Your task to perform on an android device: View the shopping cart on walmart. Image 0: 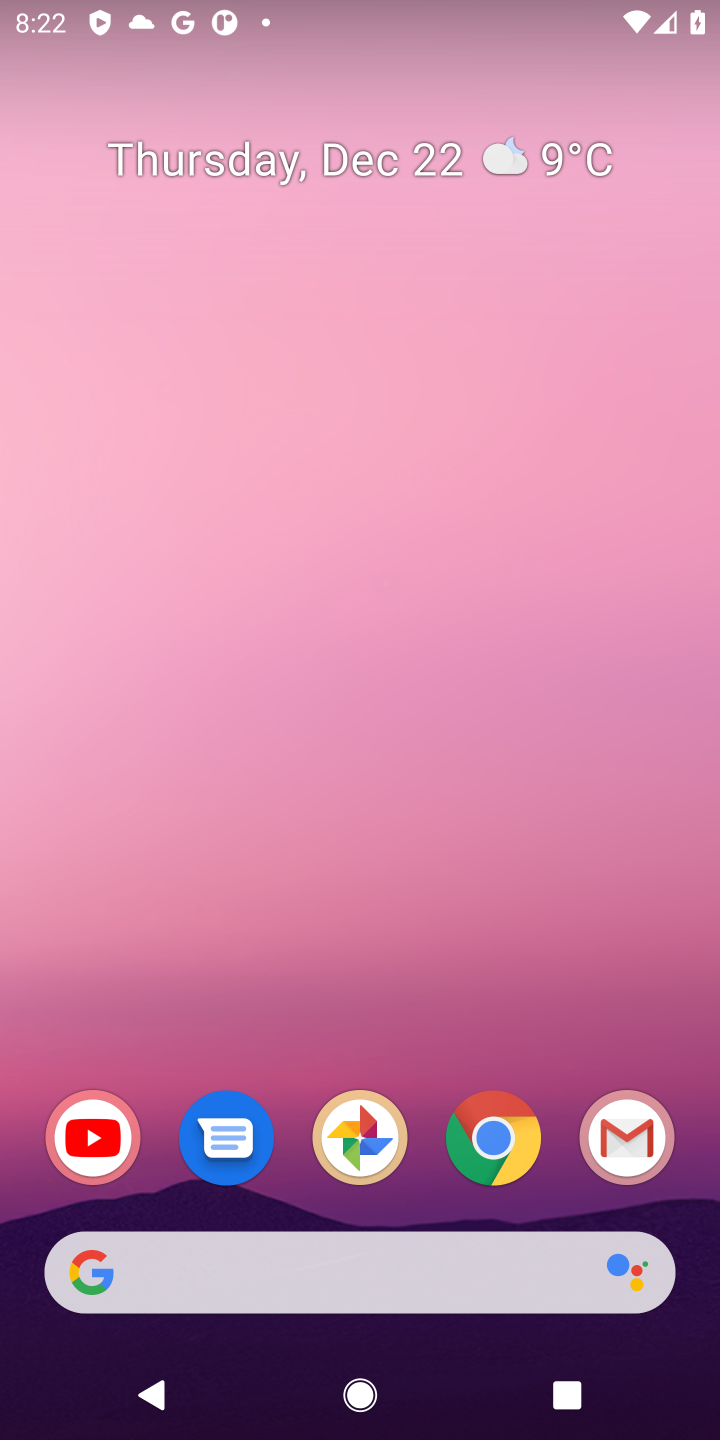
Step 0: click (483, 1142)
Your task to perform on an android device: View the shopping cart on walmart. Image 1: 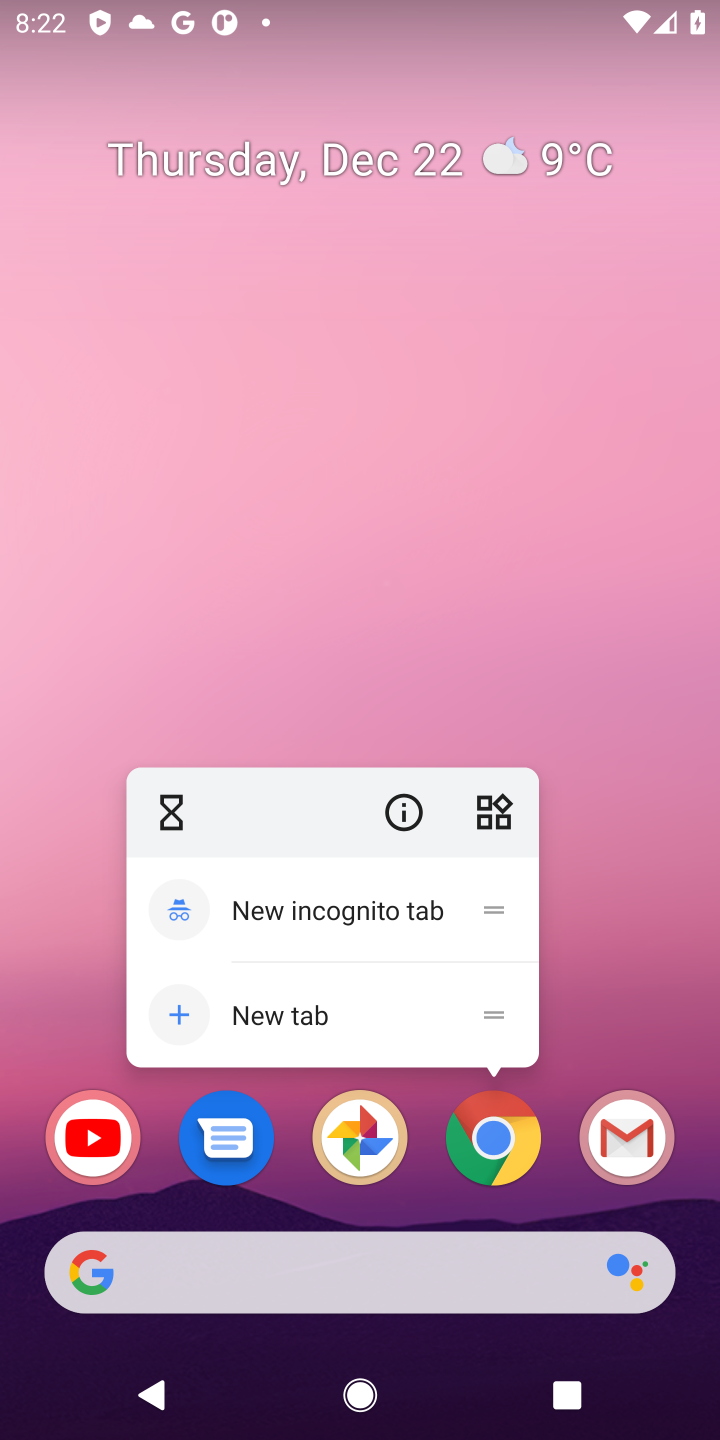
Step 1: click (514, 1166)
Your task to perform on an android device: View the shopping cart on walmart. Image 2: 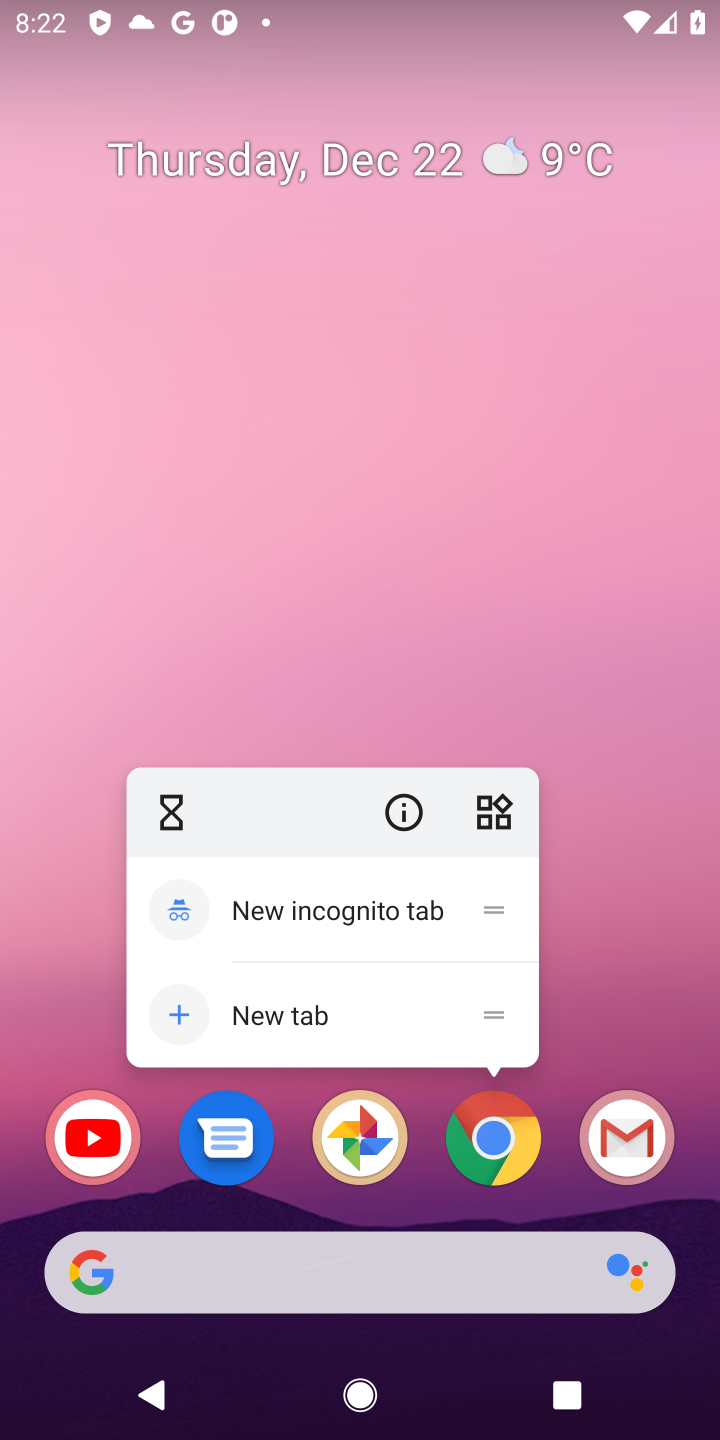
Step 2: click (275, 1031)
Your task to perform on an android device: View the shopping cart on walmart. Image 3: 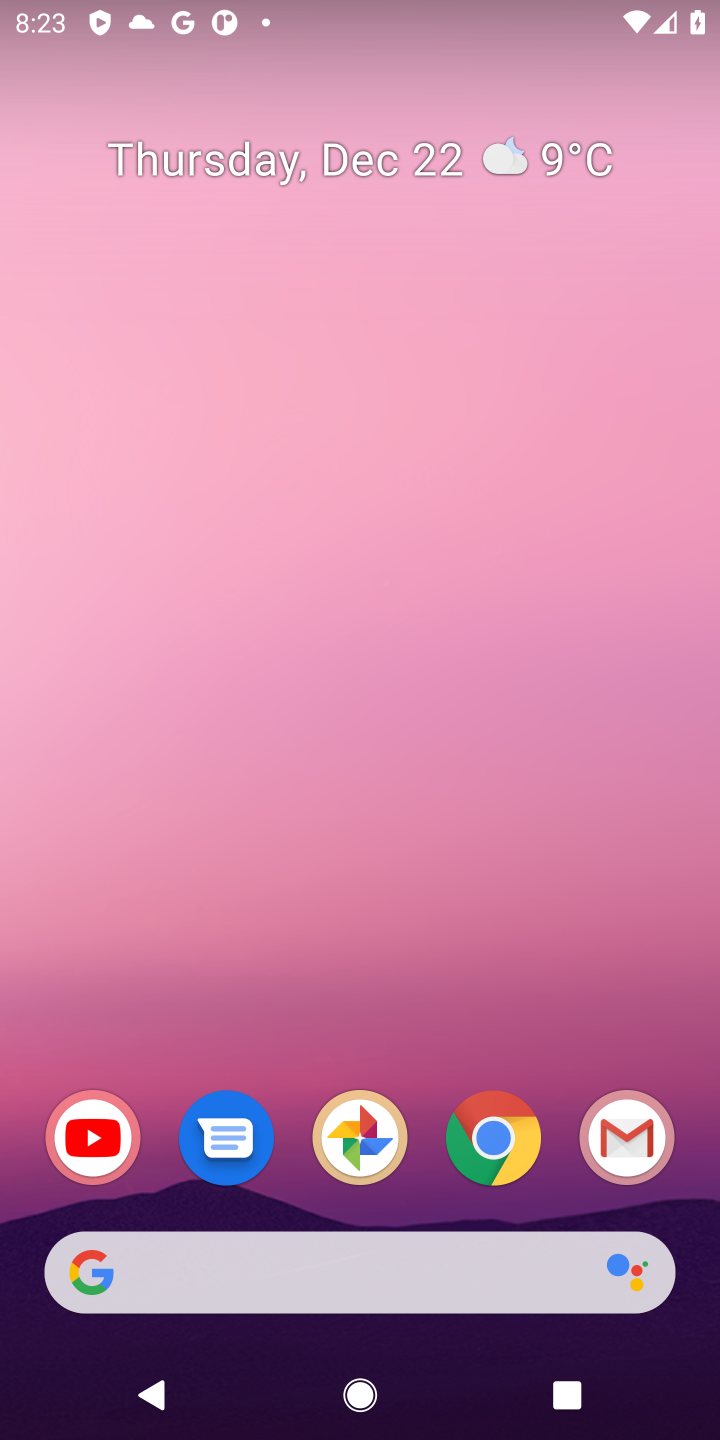
Step 3: click (489, 1139)
Your task to perform on an android device: View the shopping cart on walmart. Image 4: 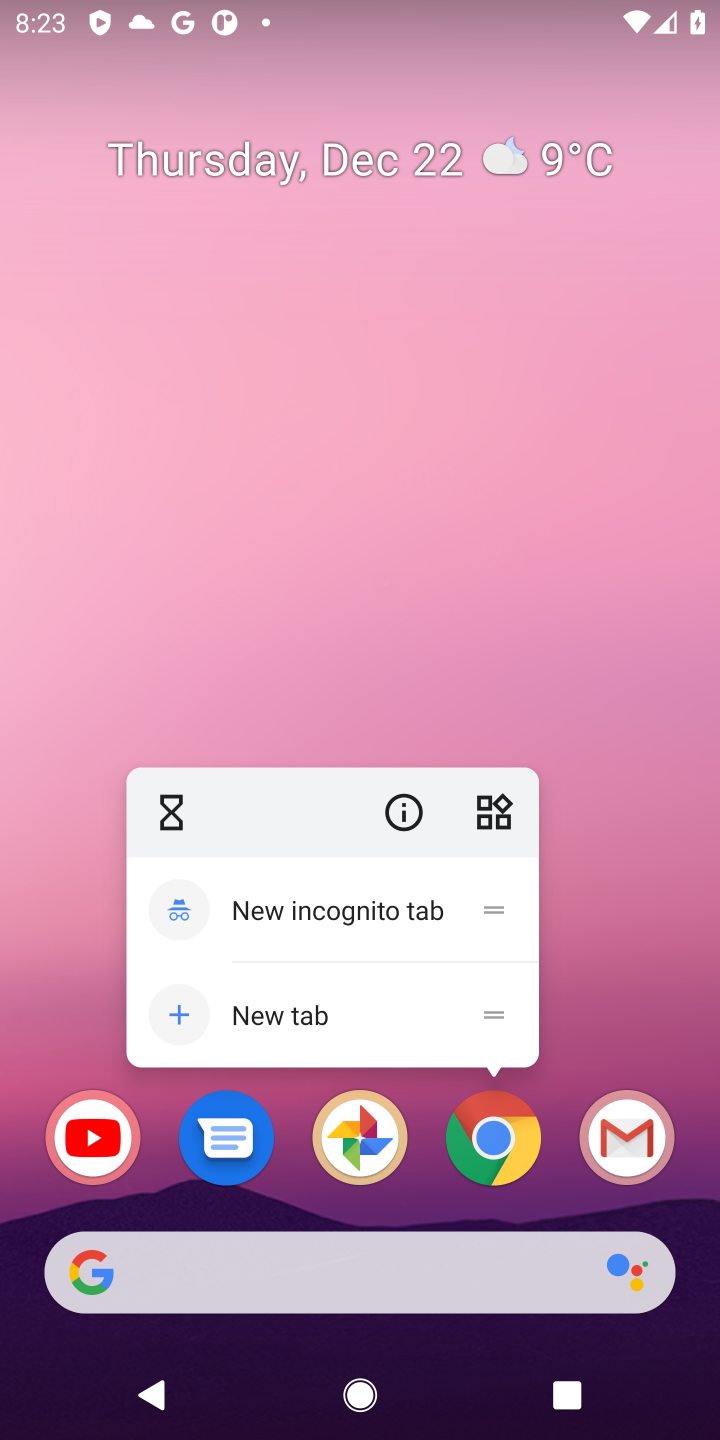
Step 4: click (334, 1022)
Your task to perform on an android device: View the shopping cart on walmart. Image 5: 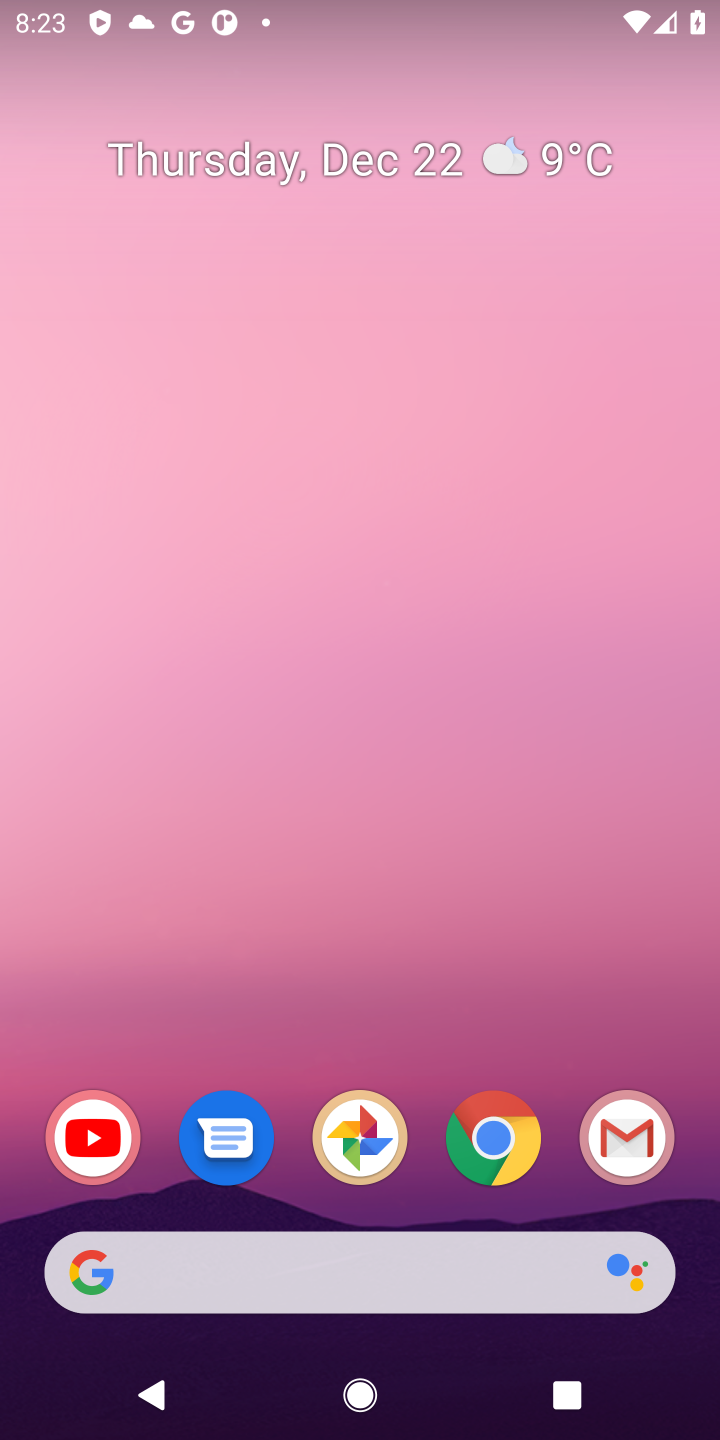
Step 5: click (493, 1141)
Your task to perform on an android device: View the shopping cart on walmart. Image 6: 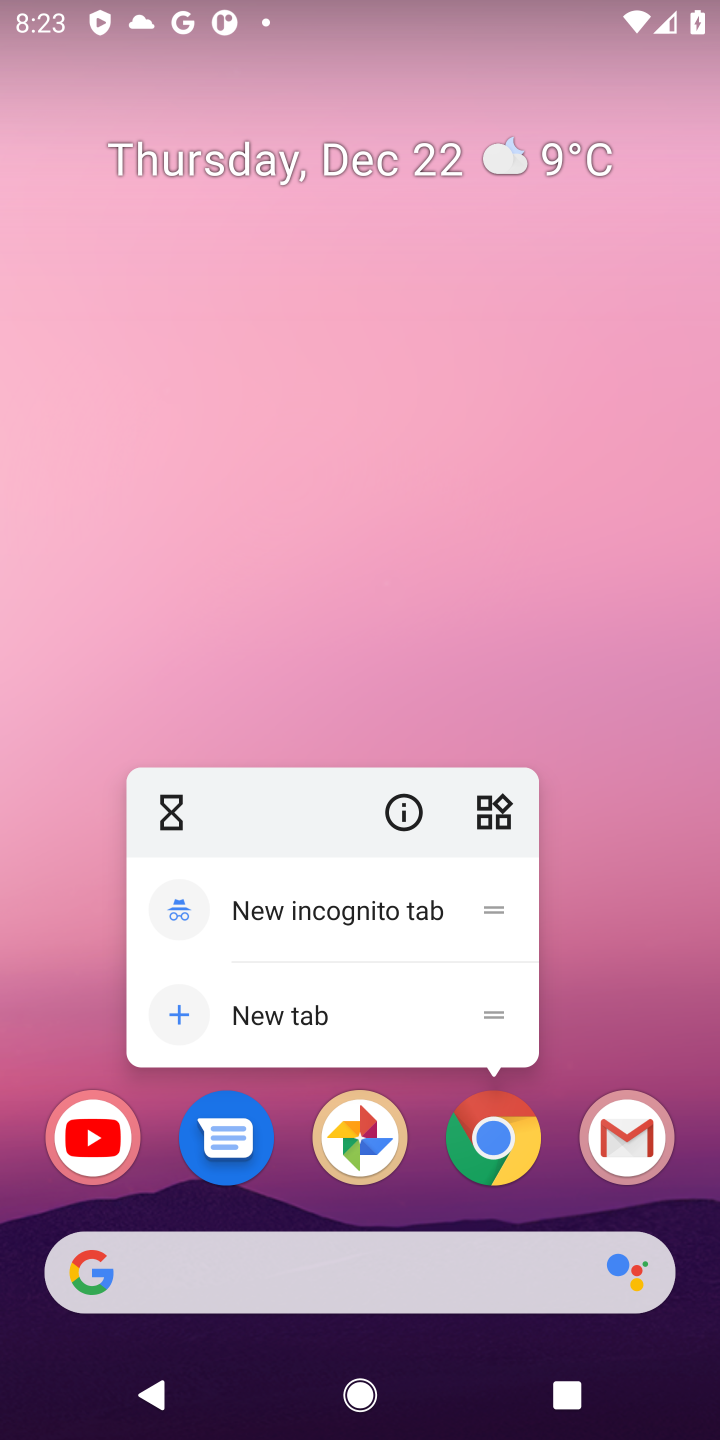
Step 6: click (493, 1141)
Your task to perform on an android device: View the shopping cart on walmart. Image 7: 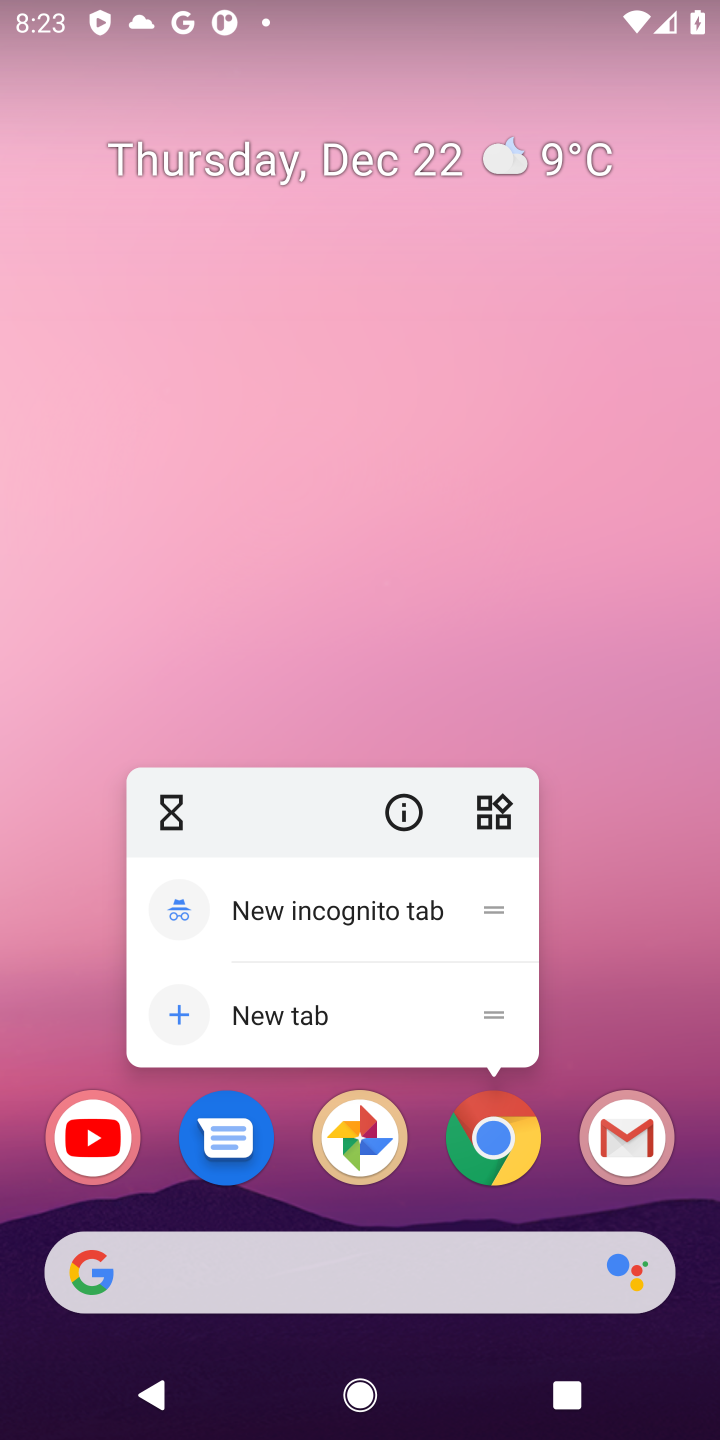
Step 7: click (493, 1141)
Your task to perform on an android device: View the shopping cart on walmart. Image 8: 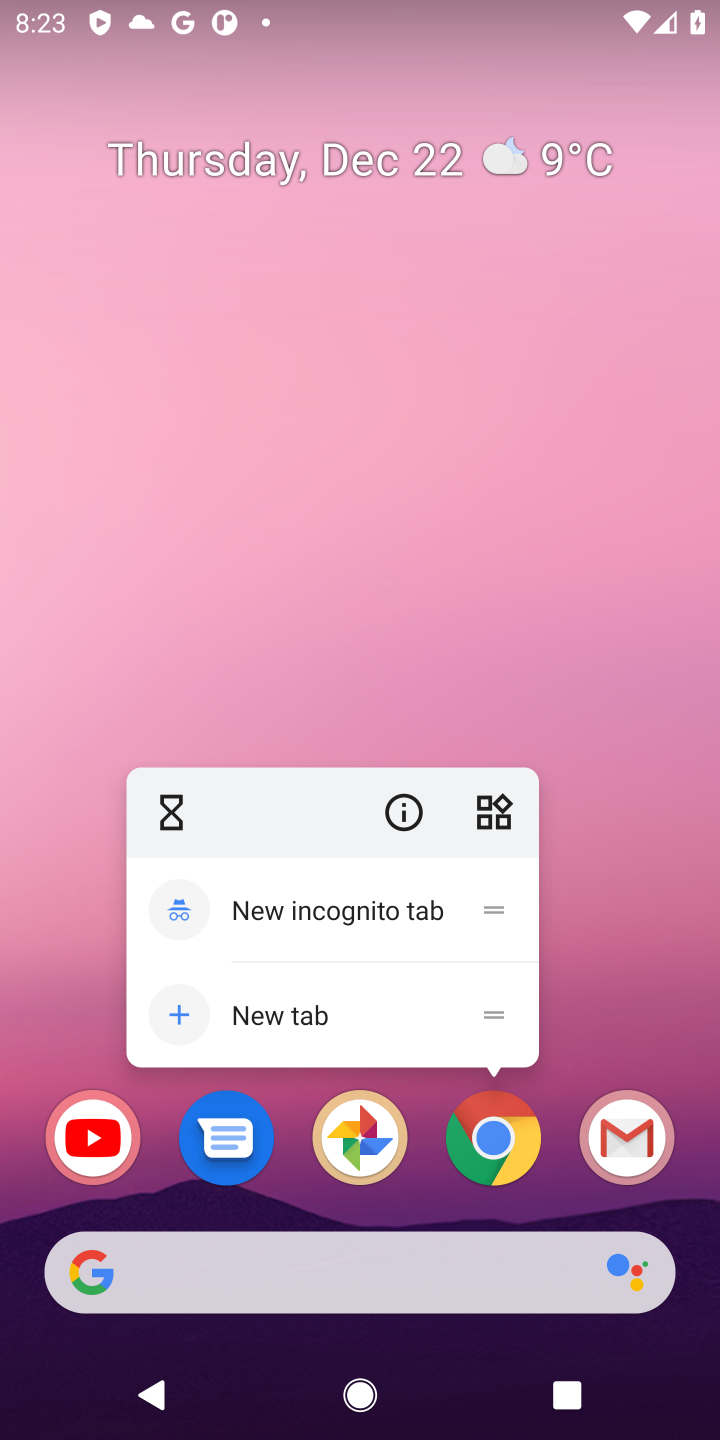
Step 8: click (493, 1141)
Your task to perform on an android device: View the shopping cart on walmart. Image 9: 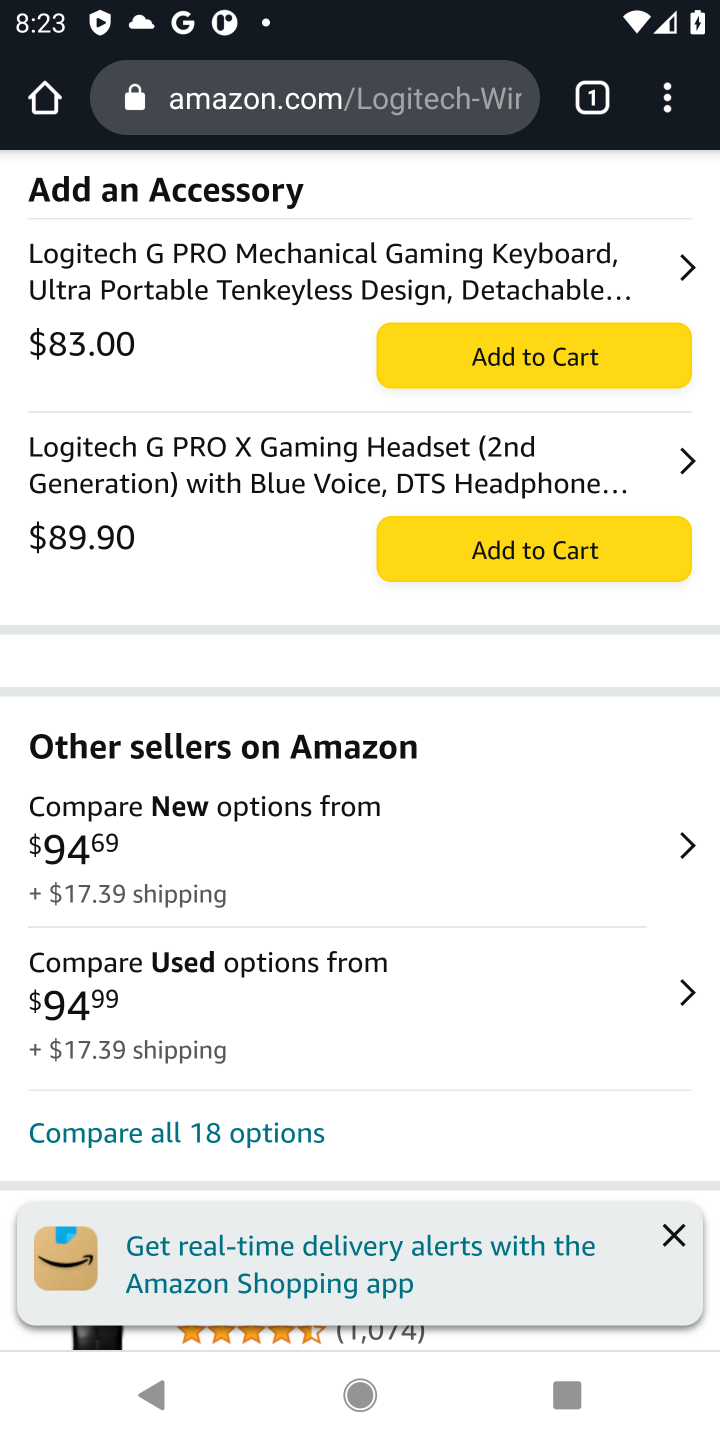
Step 9: click (332, 109)
Your task to perform on an android device: View the shopping cart on walmart. Image 10: 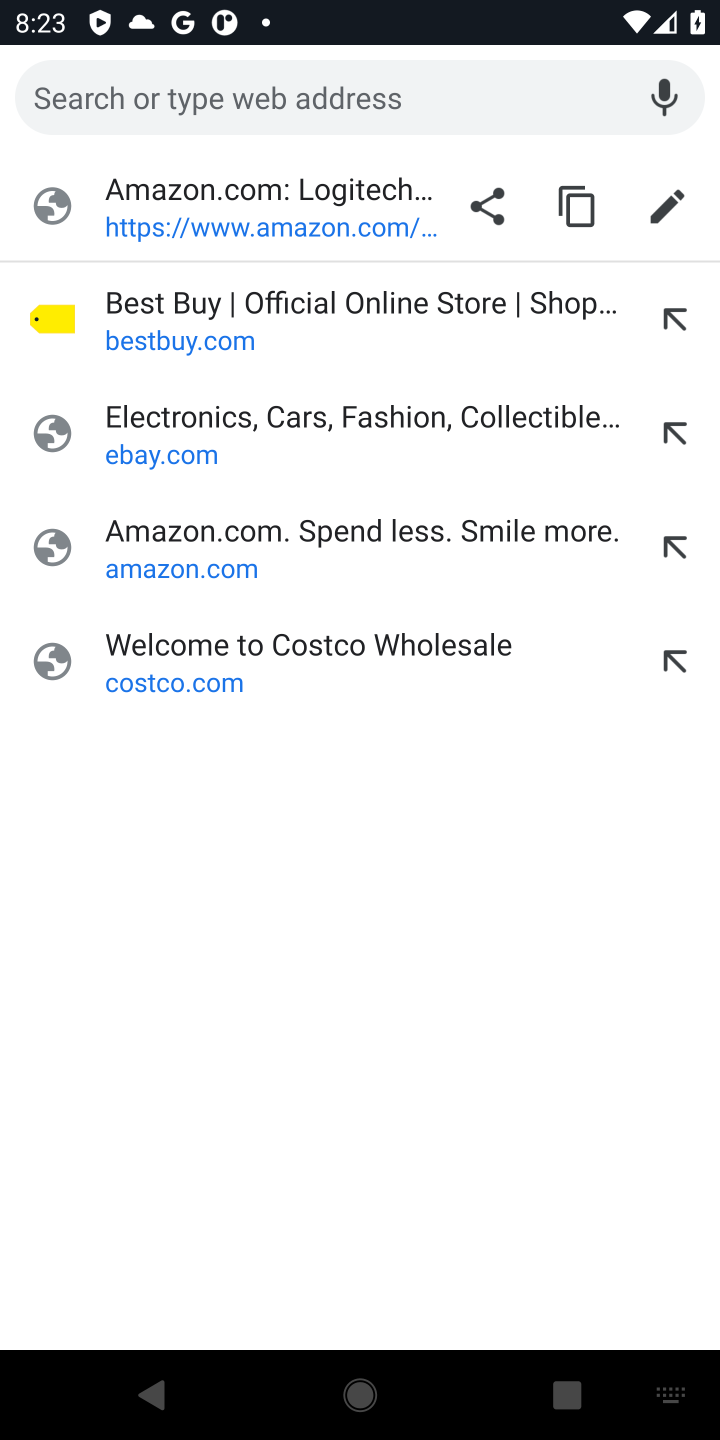
Step 10: type "walmart"
Your task to perform on an android device: View the shopping cart on walmart. Image 11: 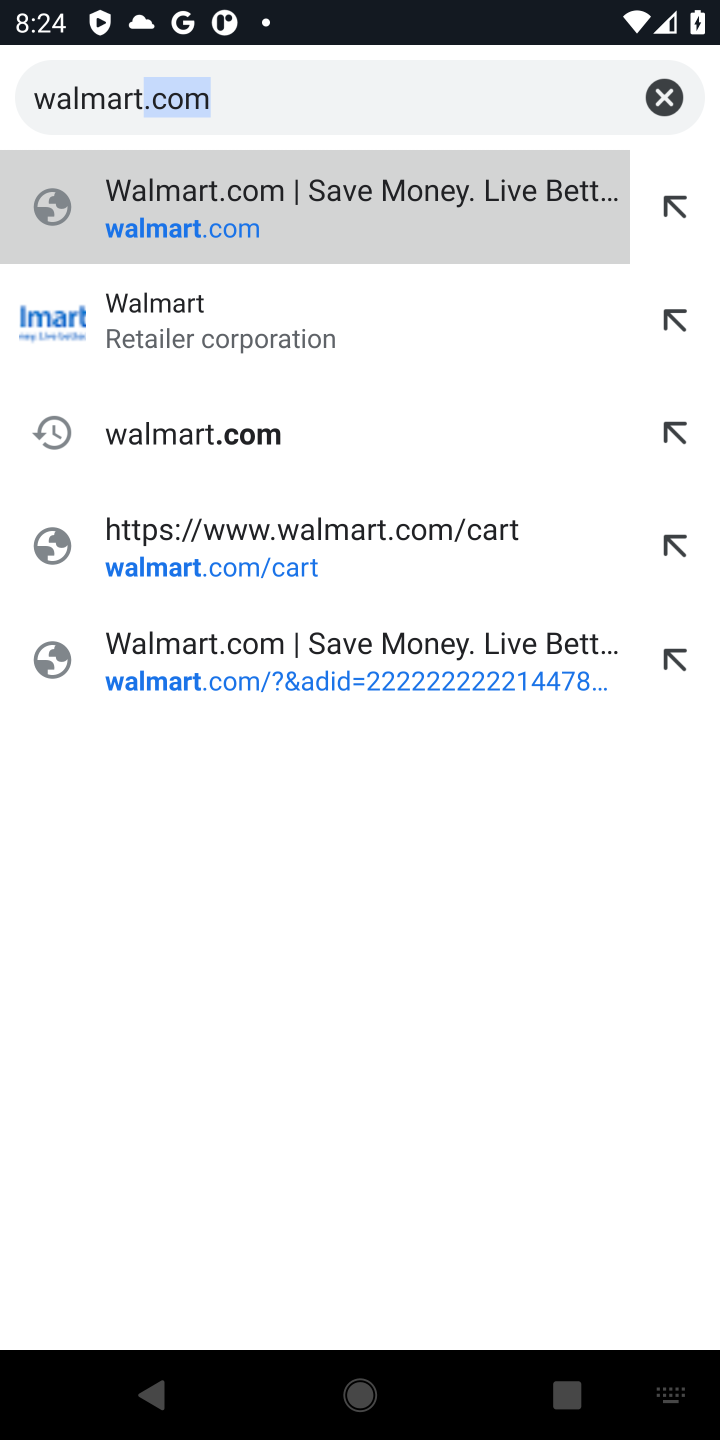
Step 11: click (411, 251)
Your task to perform on an android device: View the shopping cart on walmart. Image 12: 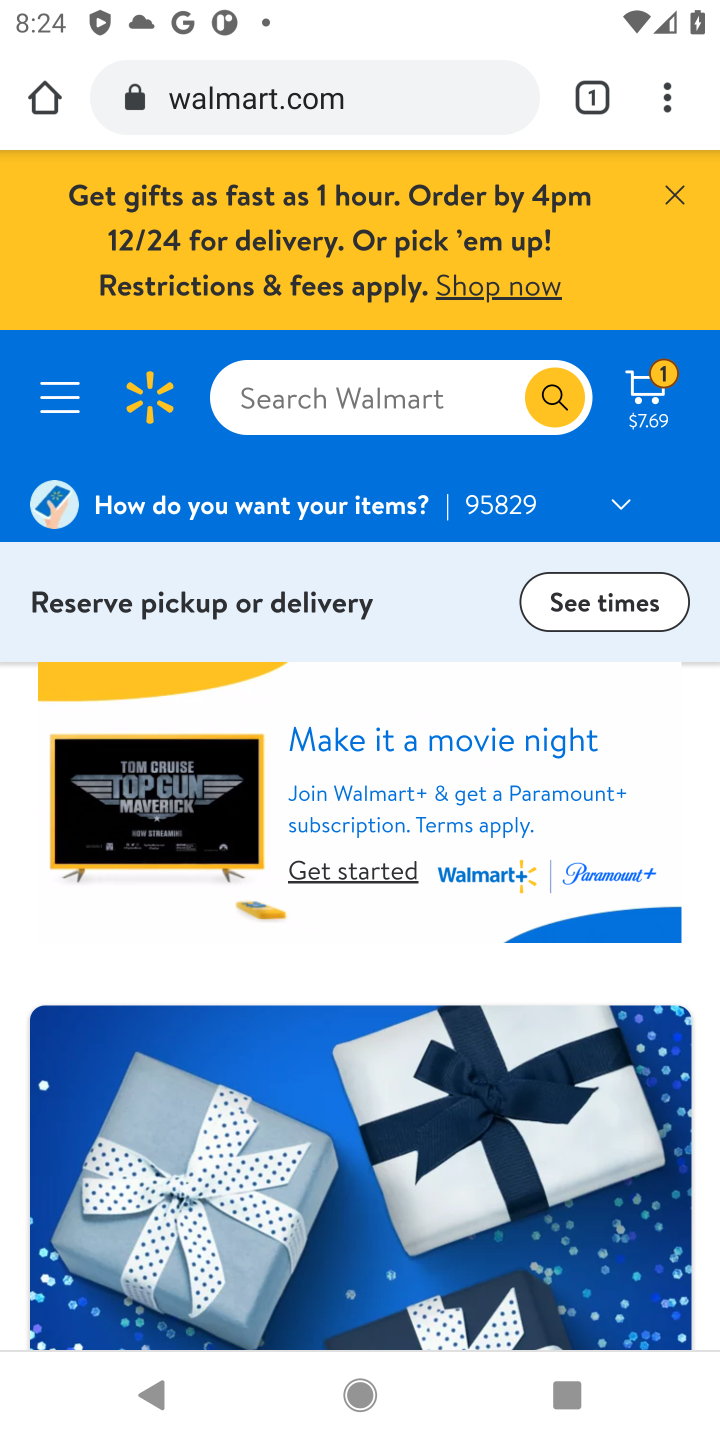
Step 12: click (668, 196)
Your task to perform on an android device: View the shopping cart on walmart. Image 13: 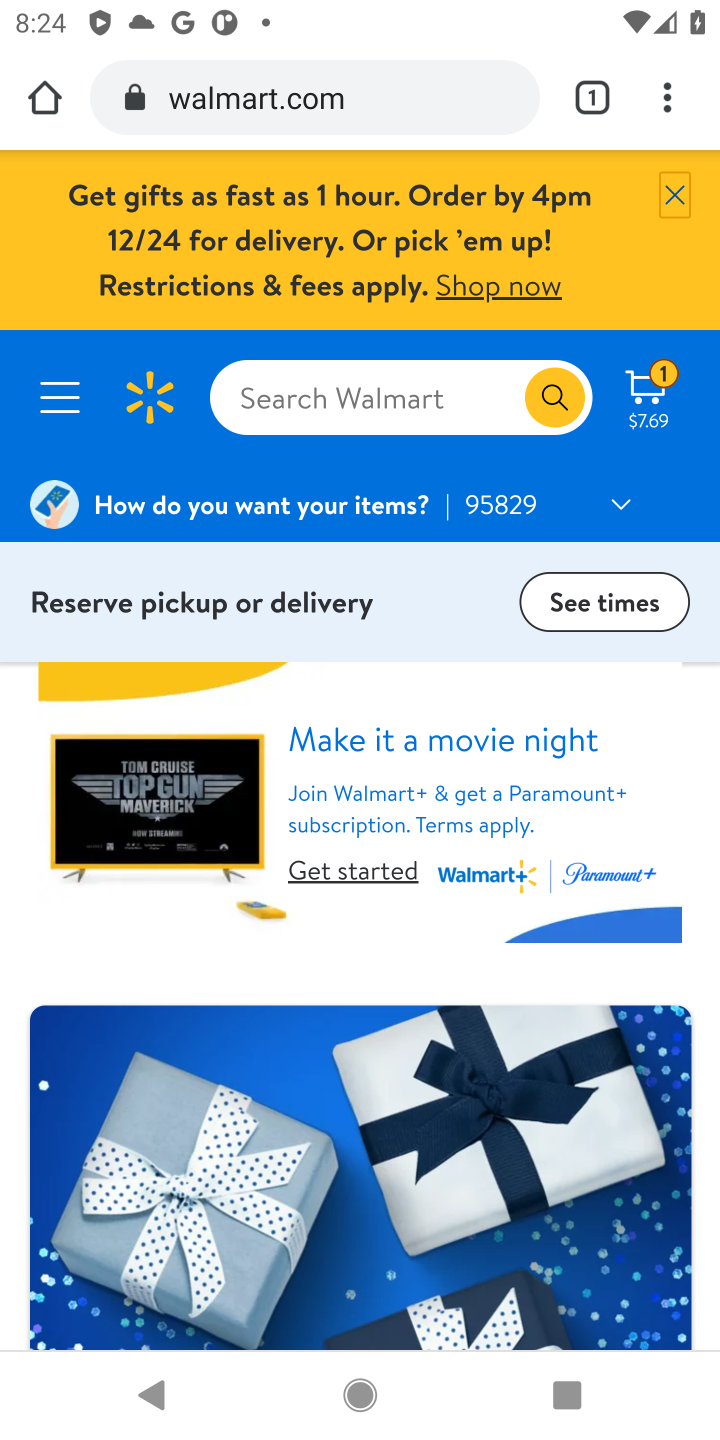
Step 13: click (650, 400)
Your task to perform on an android device: View the shopping cart on walmart. Image 14: 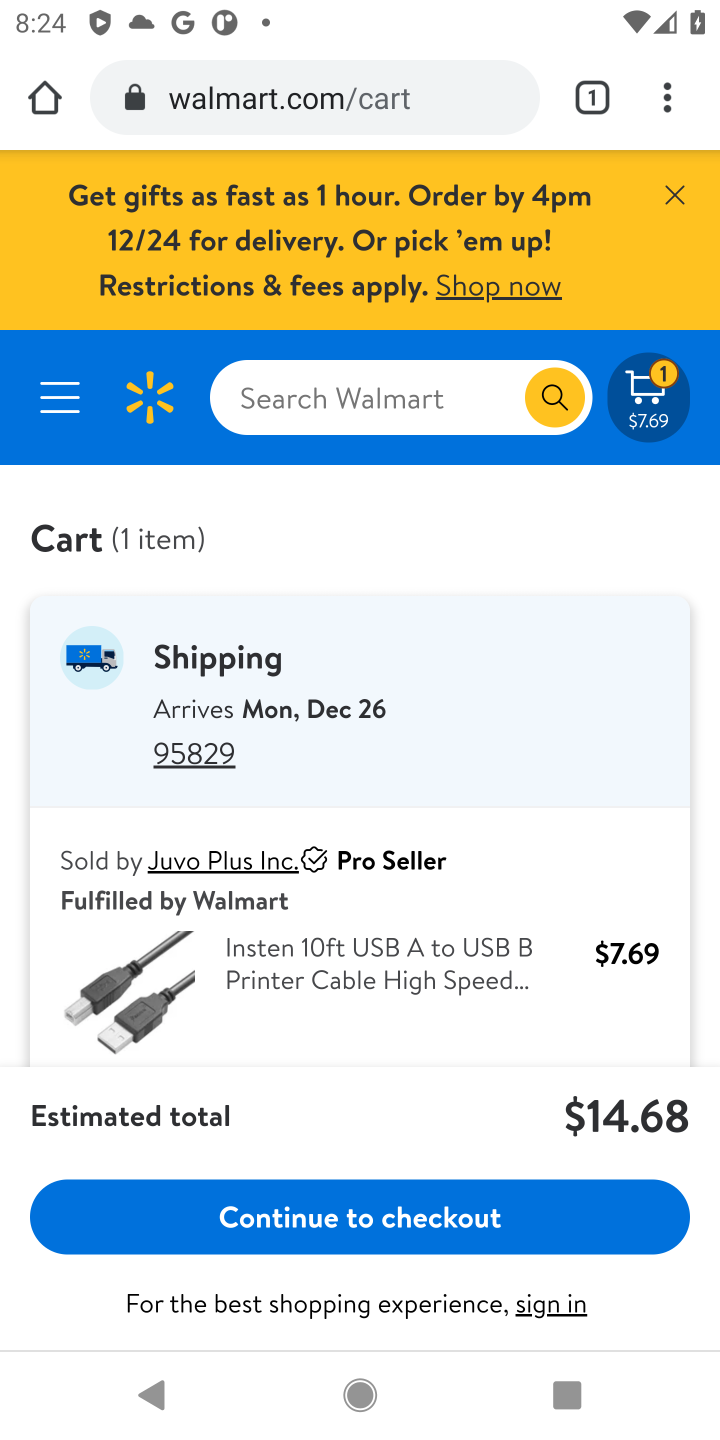
Step 14: click (673, 194)
Your task to perform on an android device: View the shopping cart on walmart. Image 15: 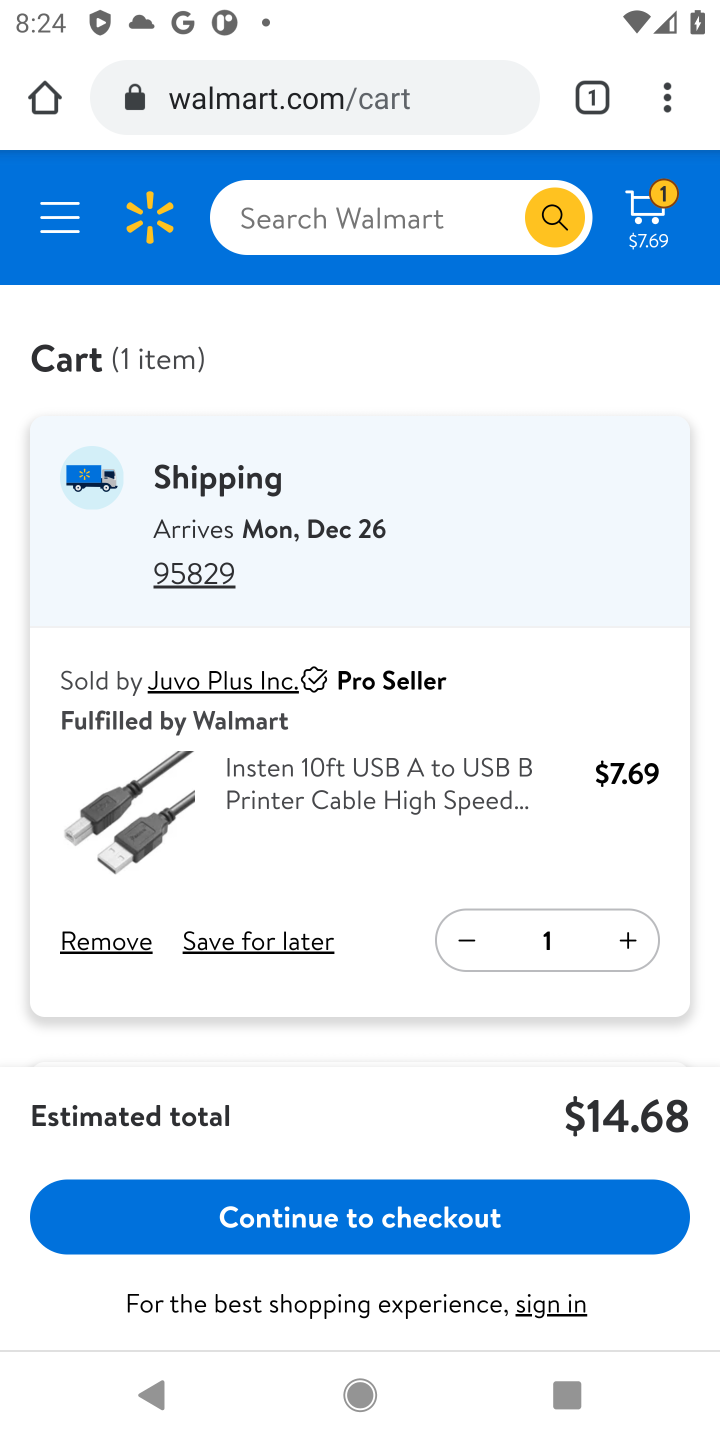
Step 15: task complete